Your task to perform on an android device: Go to CNN.com Image 0: 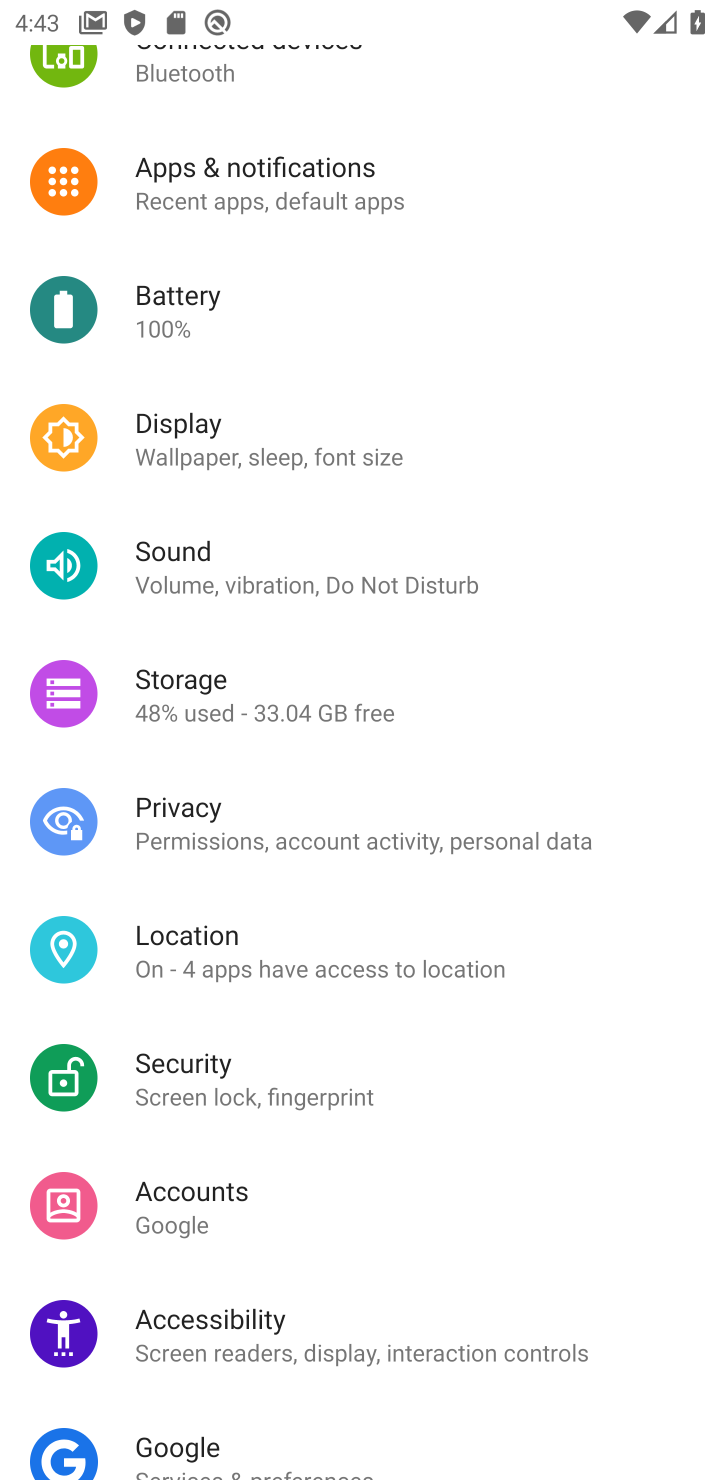
Step 0: press home button
Your task to perform on an android device: Go to CNN.com Image 1: 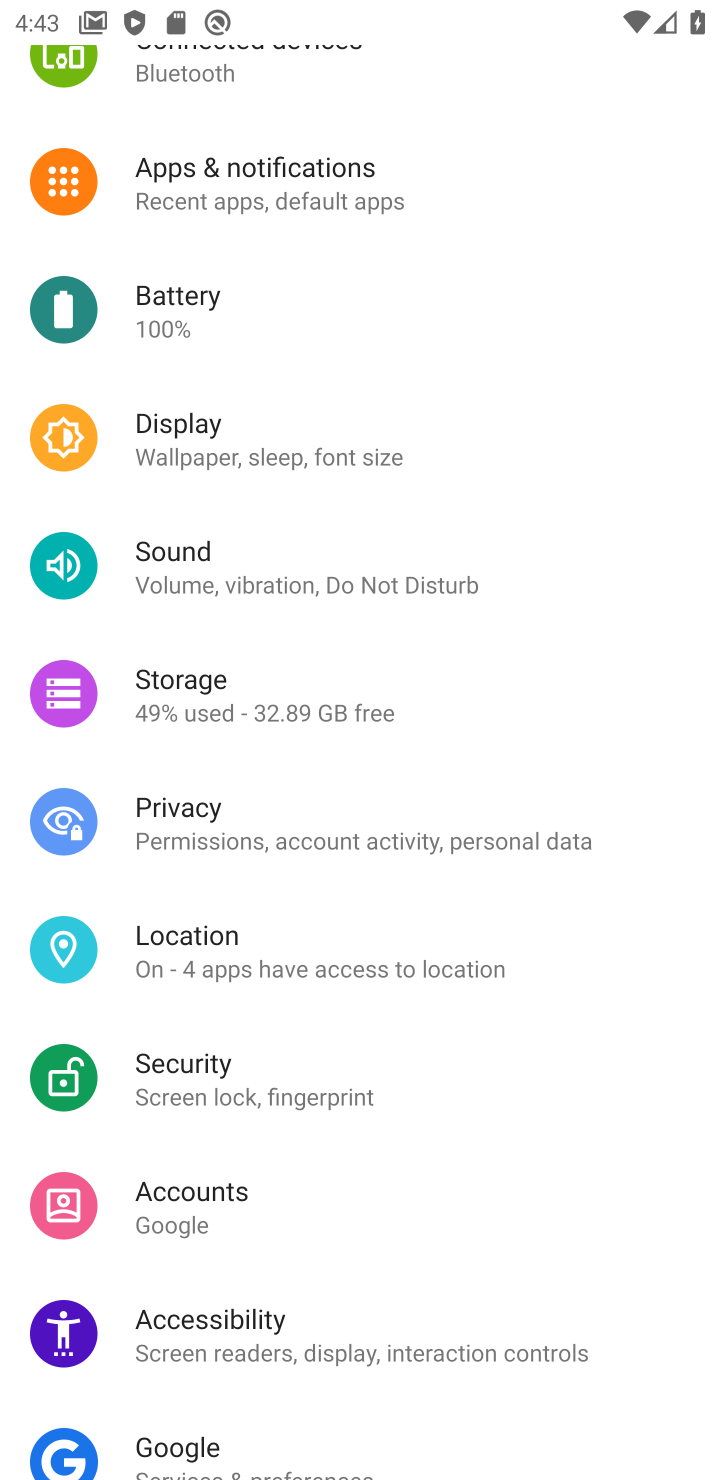
Step 1: press home button
Your task to perform on an android device: Go to CNN.com Image 2: 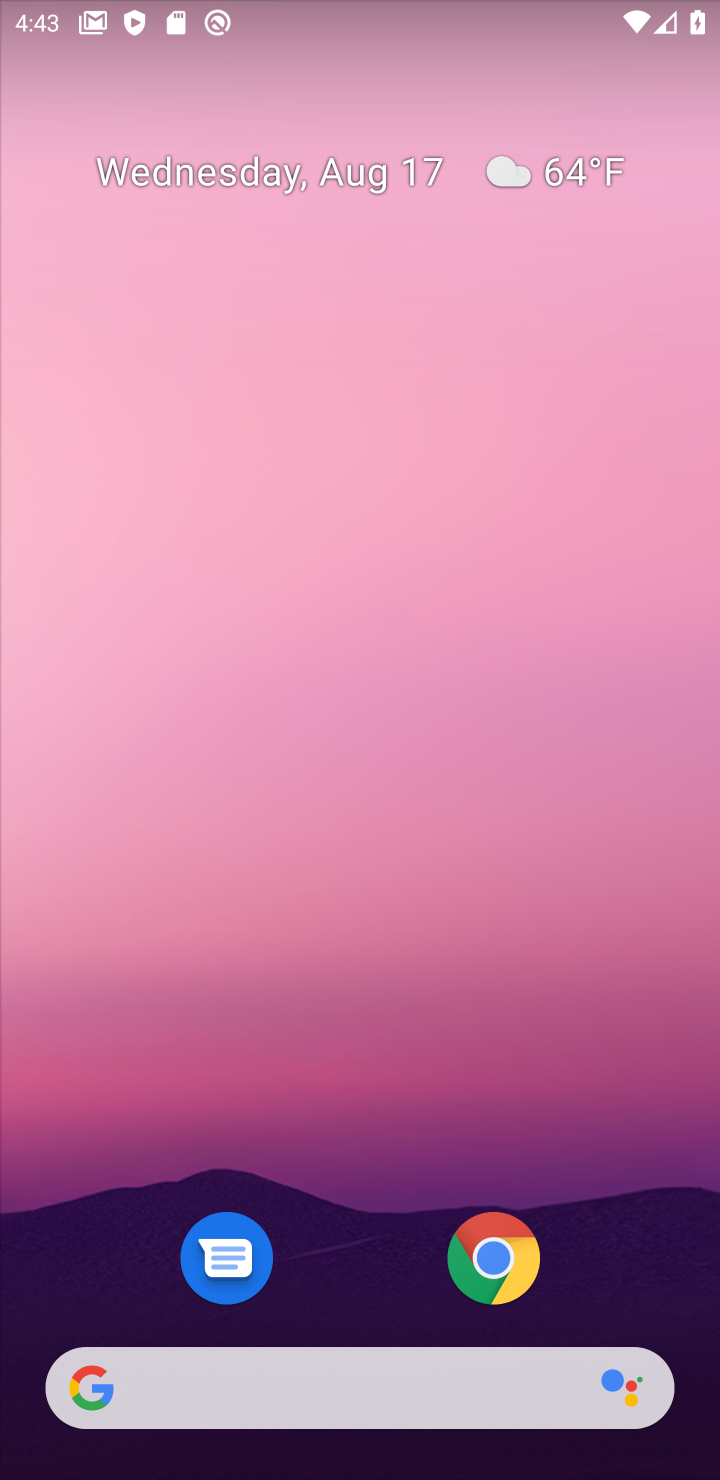
Step 2: drag from (335, 916) to (310, 159)
Your task to perform on an android device: Go to CNN.com Image 3: 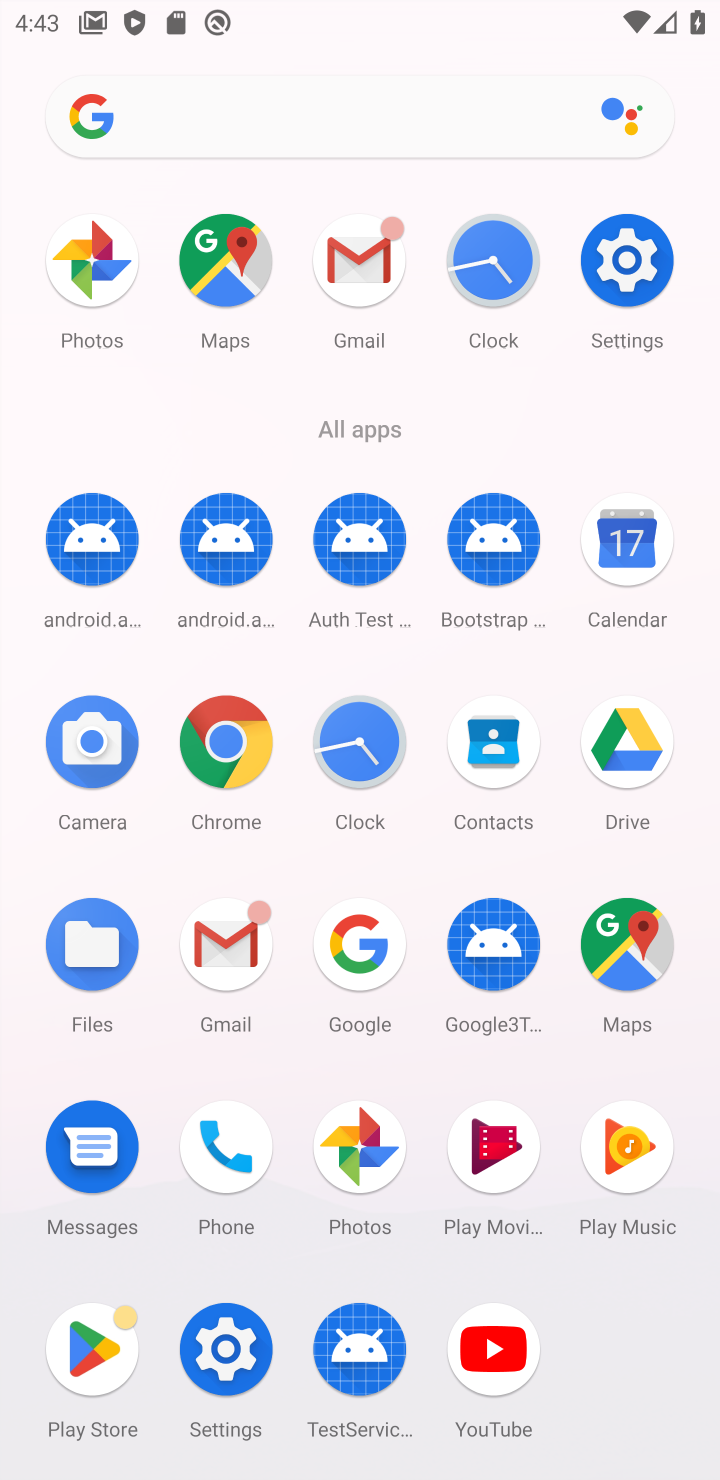
Step 3: click (217, 743)
Your task to perform on an android device: Go to CNN.com Image 4: 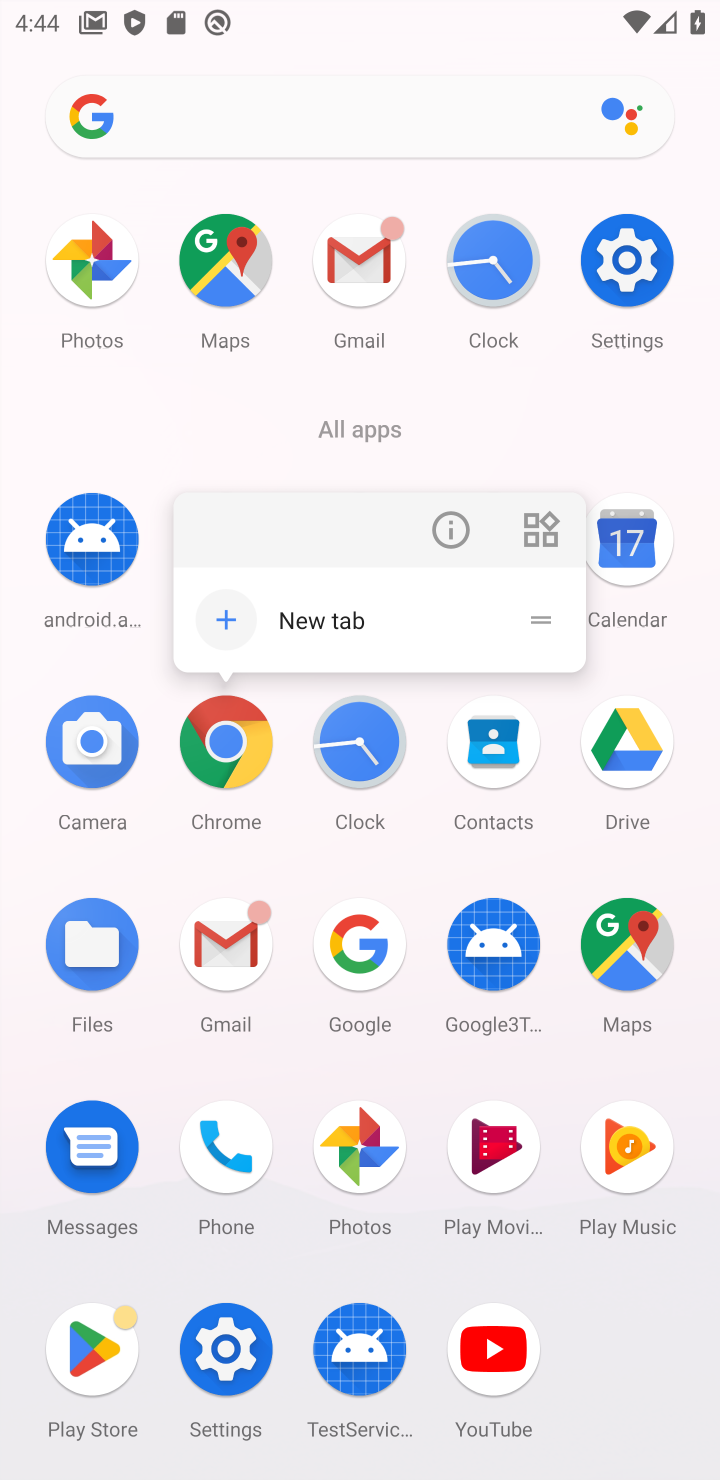
Step 4: click (236, 739)
Your task to perform on an android device: Go to CNN.com Image 5: 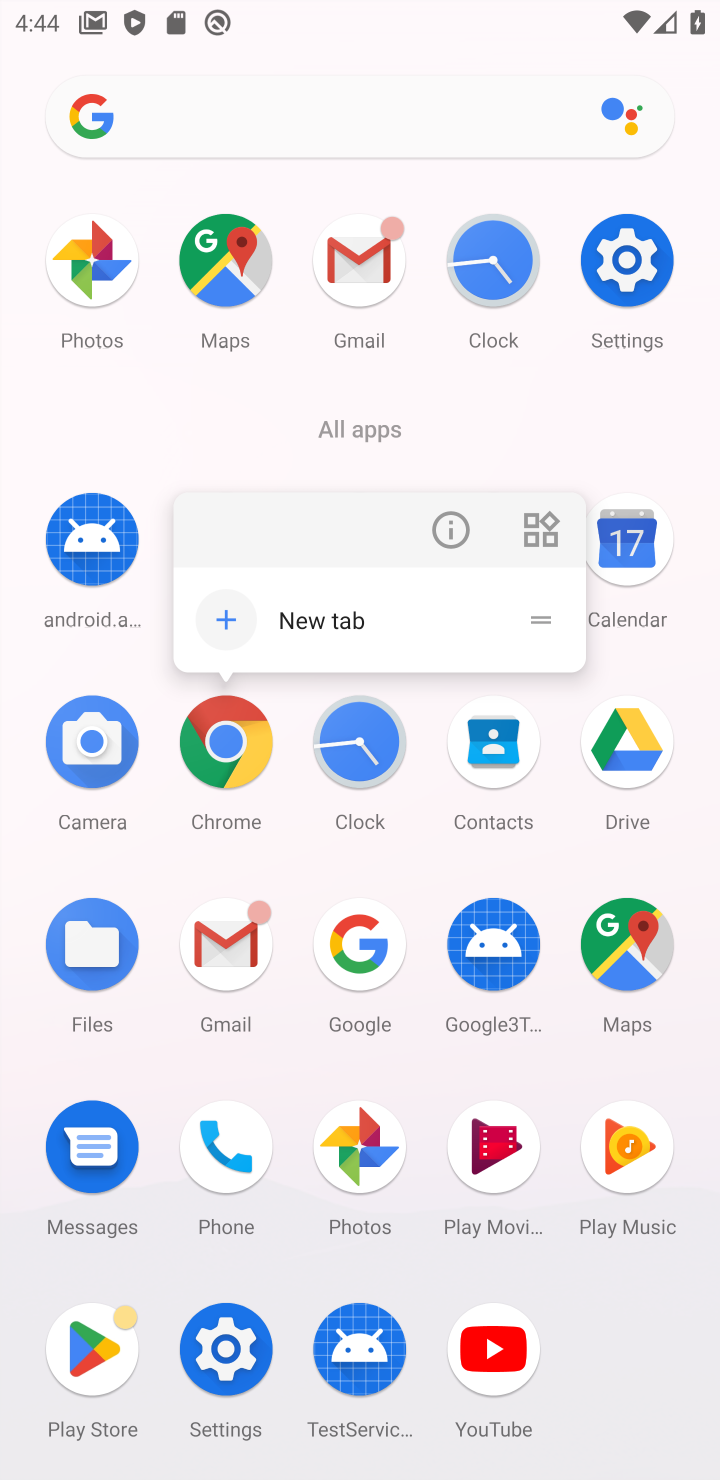
Step 5: click (242, 740)
Your task to perform on an android device: Go to CNN.com Image 6: 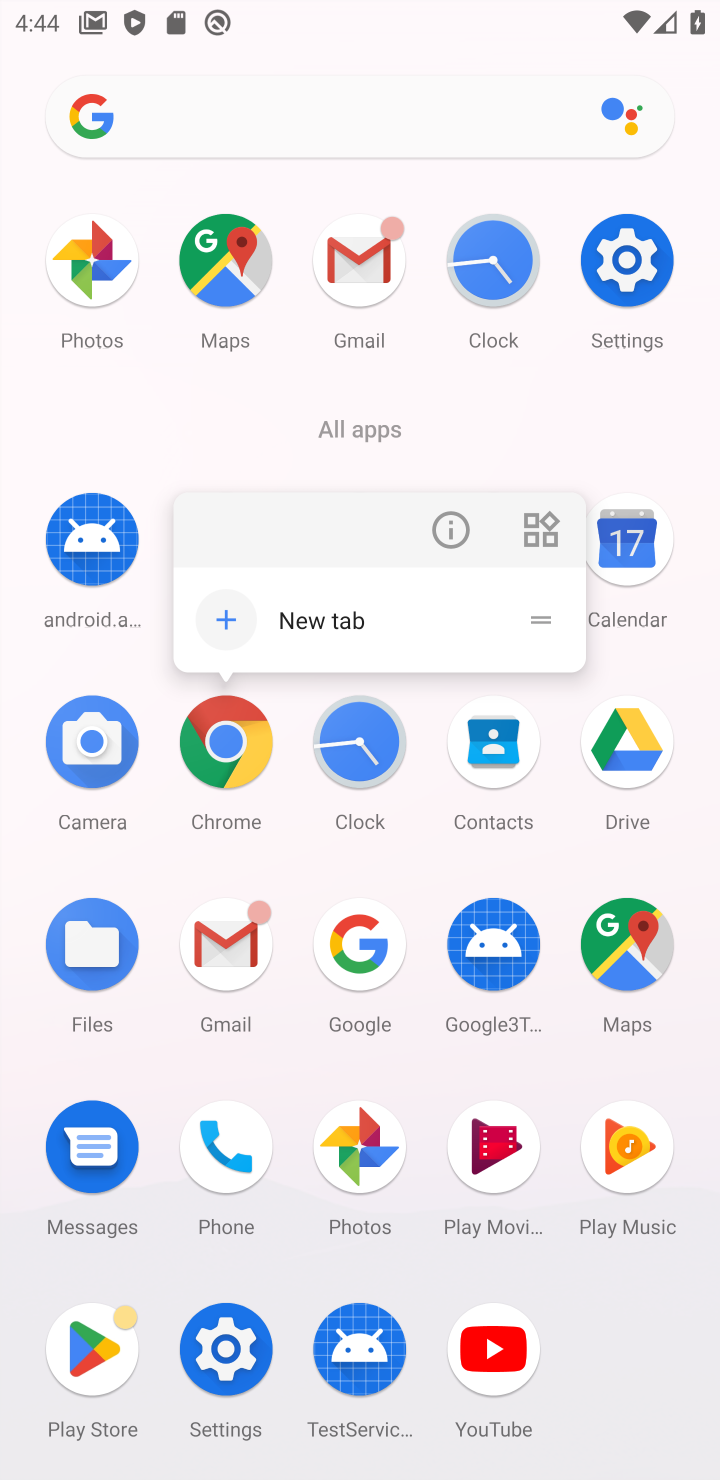
Step 6: click (242, 740)
Your task to perform on an android device: Go to CNN.com Image 7: 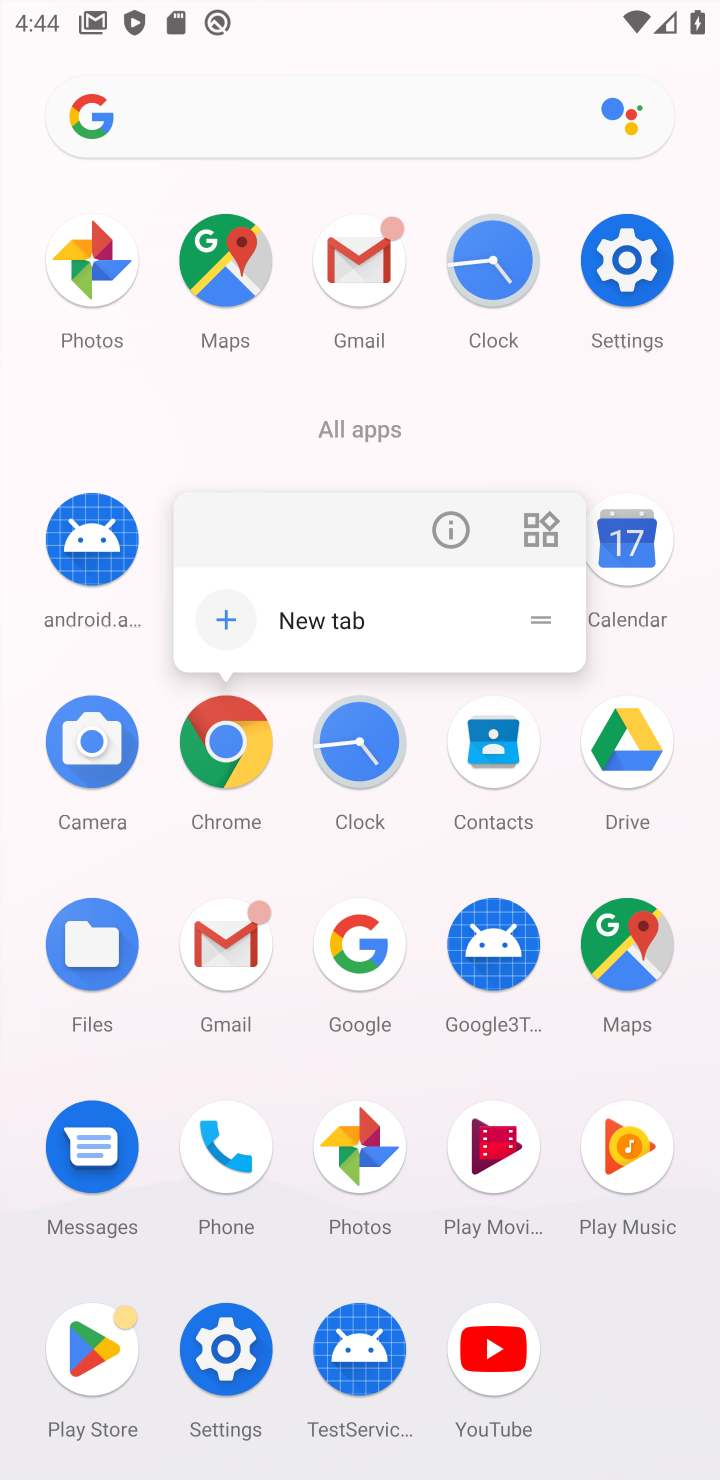
Step 7: click (234, 746)
Your task to perform on an android device: Go to CNN.com Image 8: 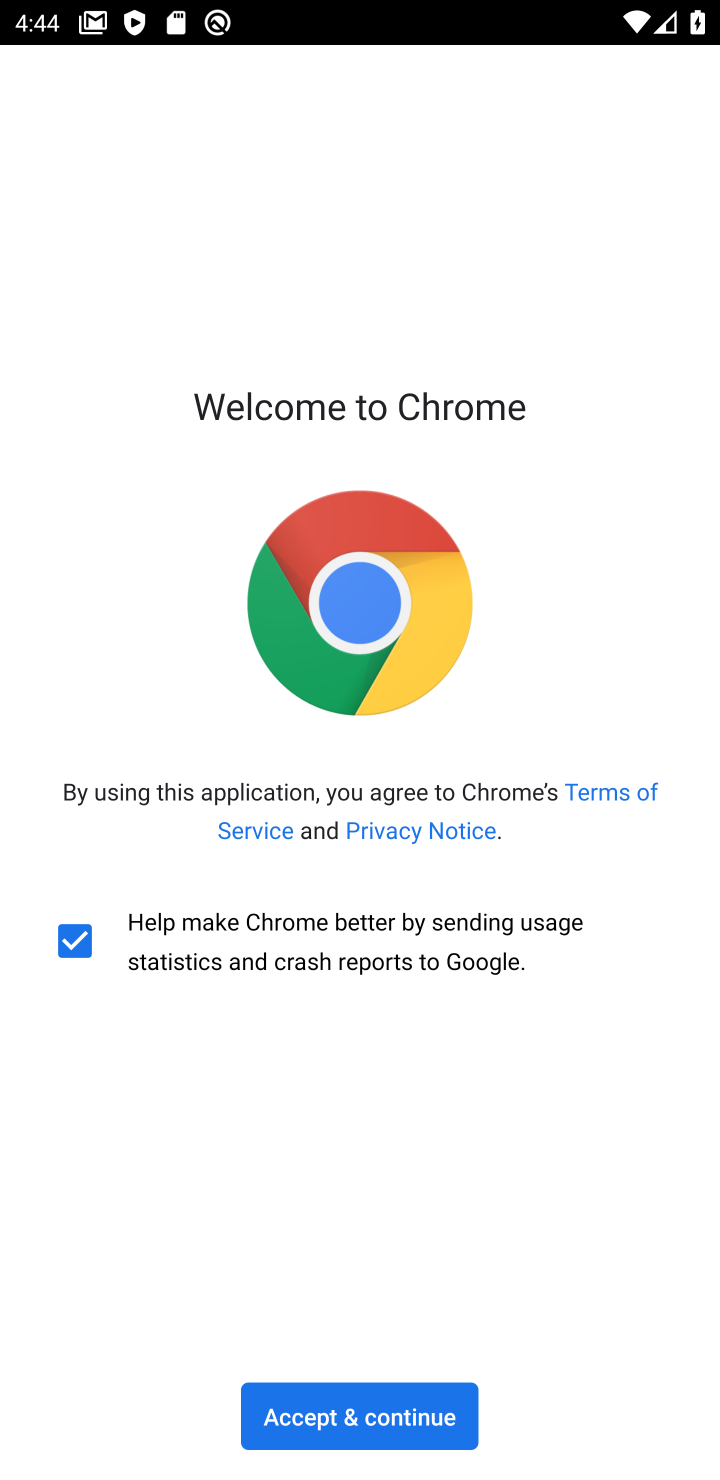
Step 8: click (289, 1428)
Your task to perform on an android device: Go to CNN.com Image 9: 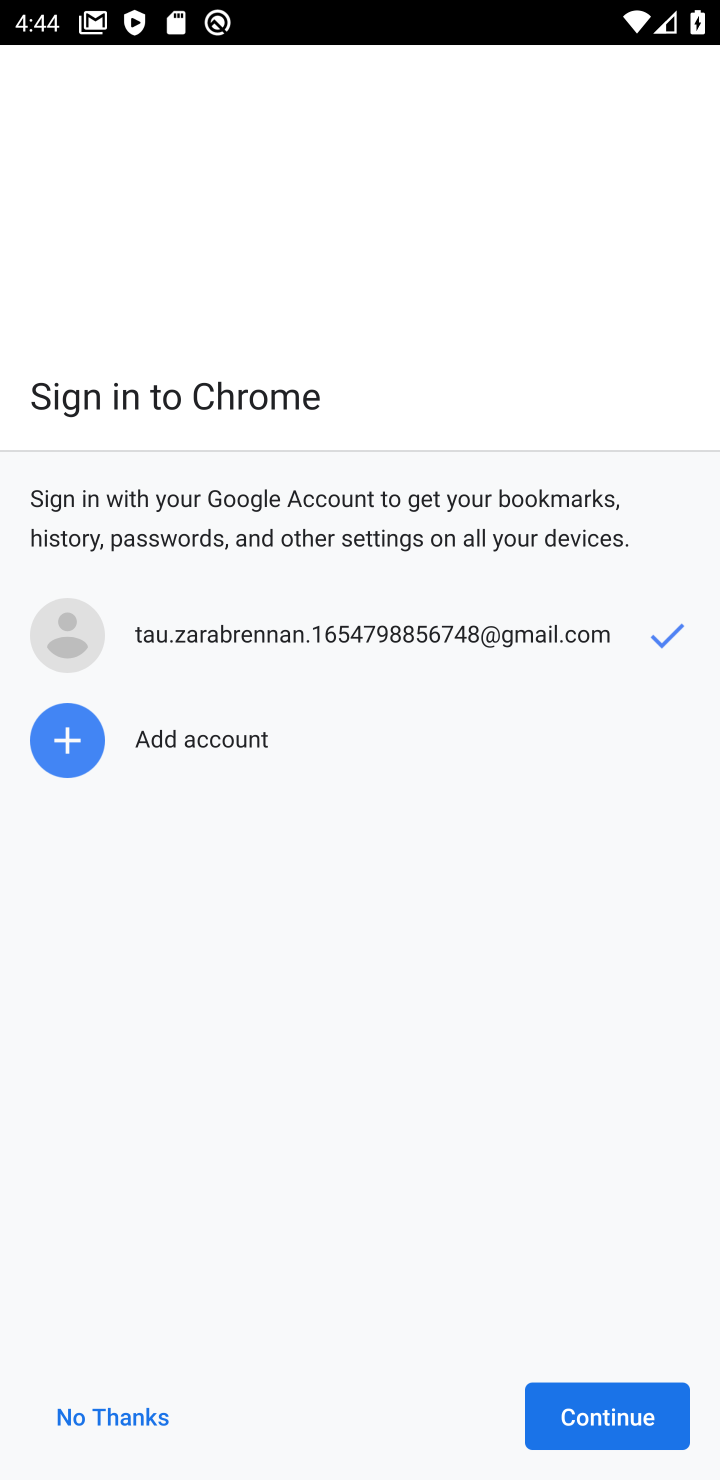
Step 9: click (649, 1407)
Your task to perform on an android device: Go to CNN.com Image 10: 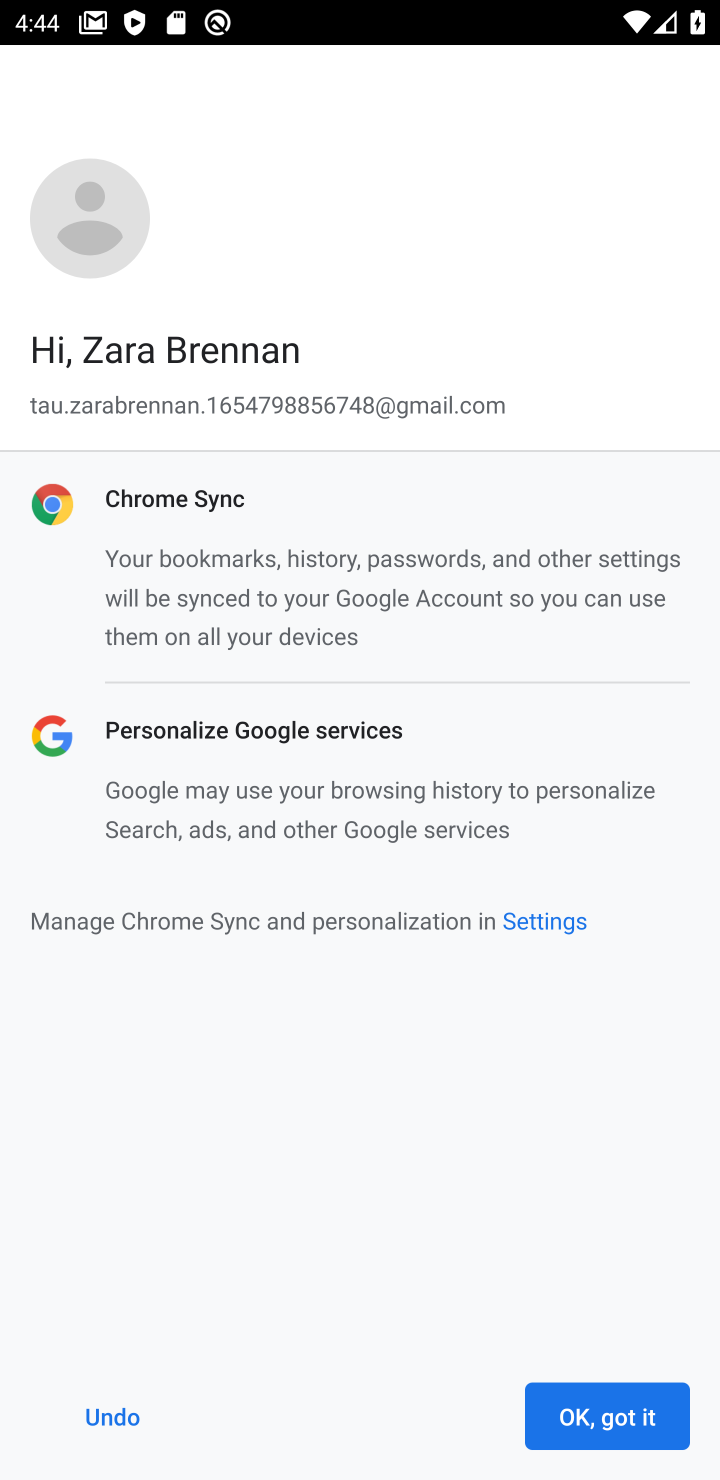
Step 10: click (637, 1422)
Your task to perform on an android device: Go to CNN.com Image 11: 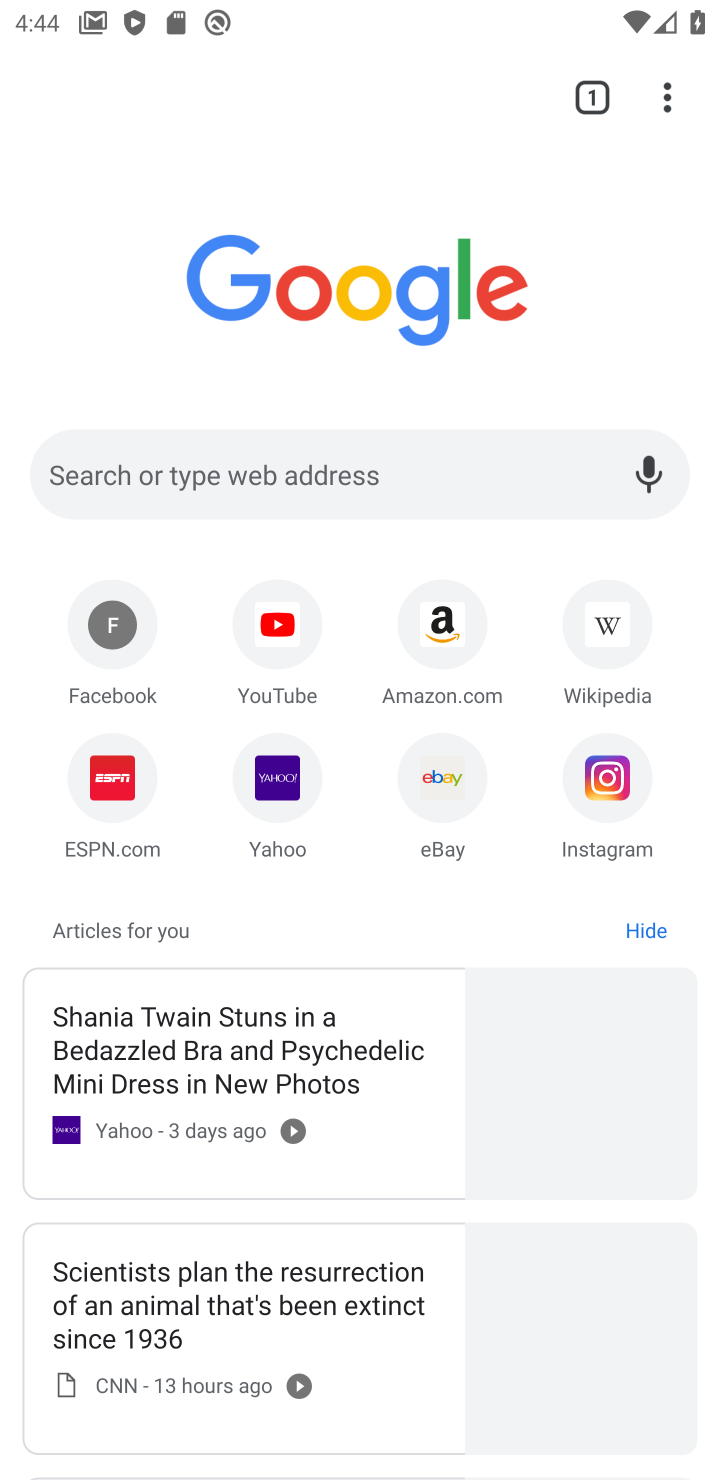
Step 11: click (334, 472)
Your task to perform on an android device: Go to CNN.com Image 12: 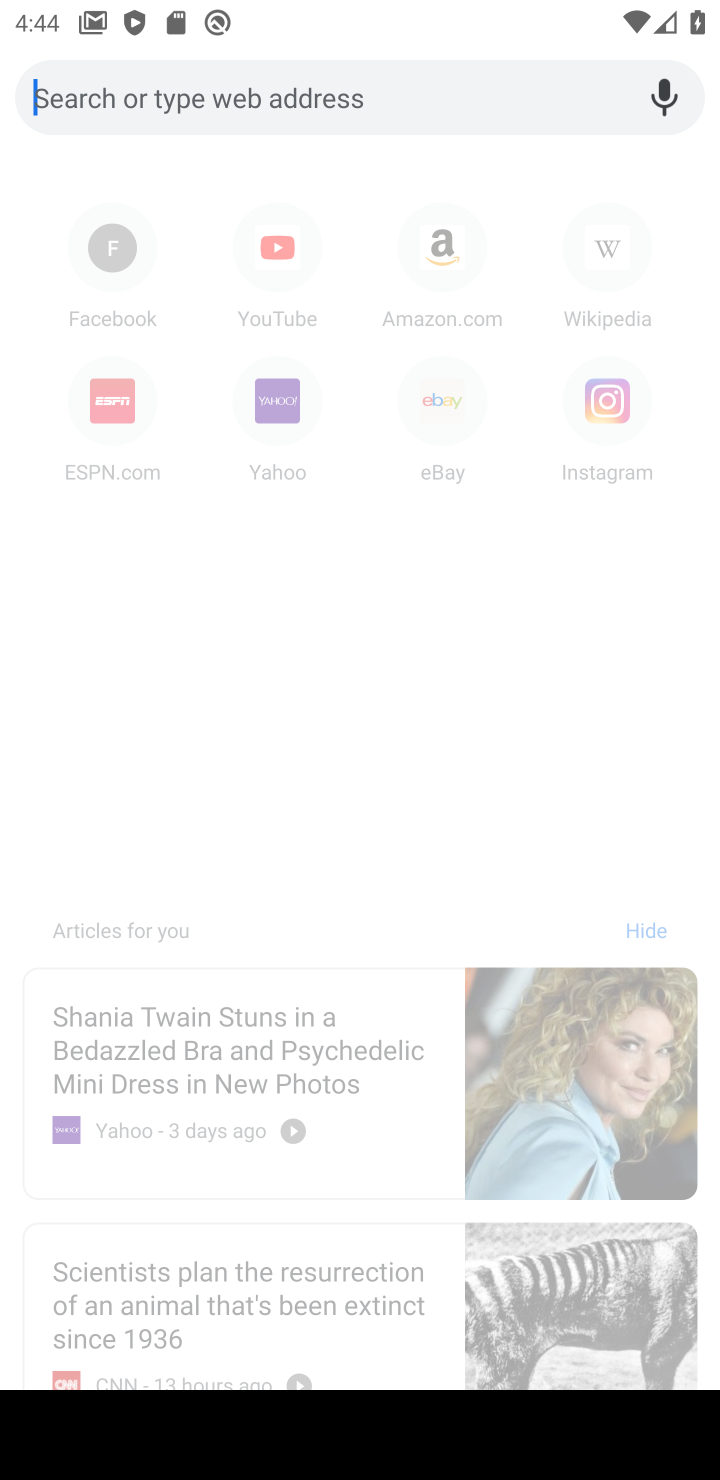
Step 12: type "cnn.com"
Your task to perform on an android device: Go to CNN.com Image 13: 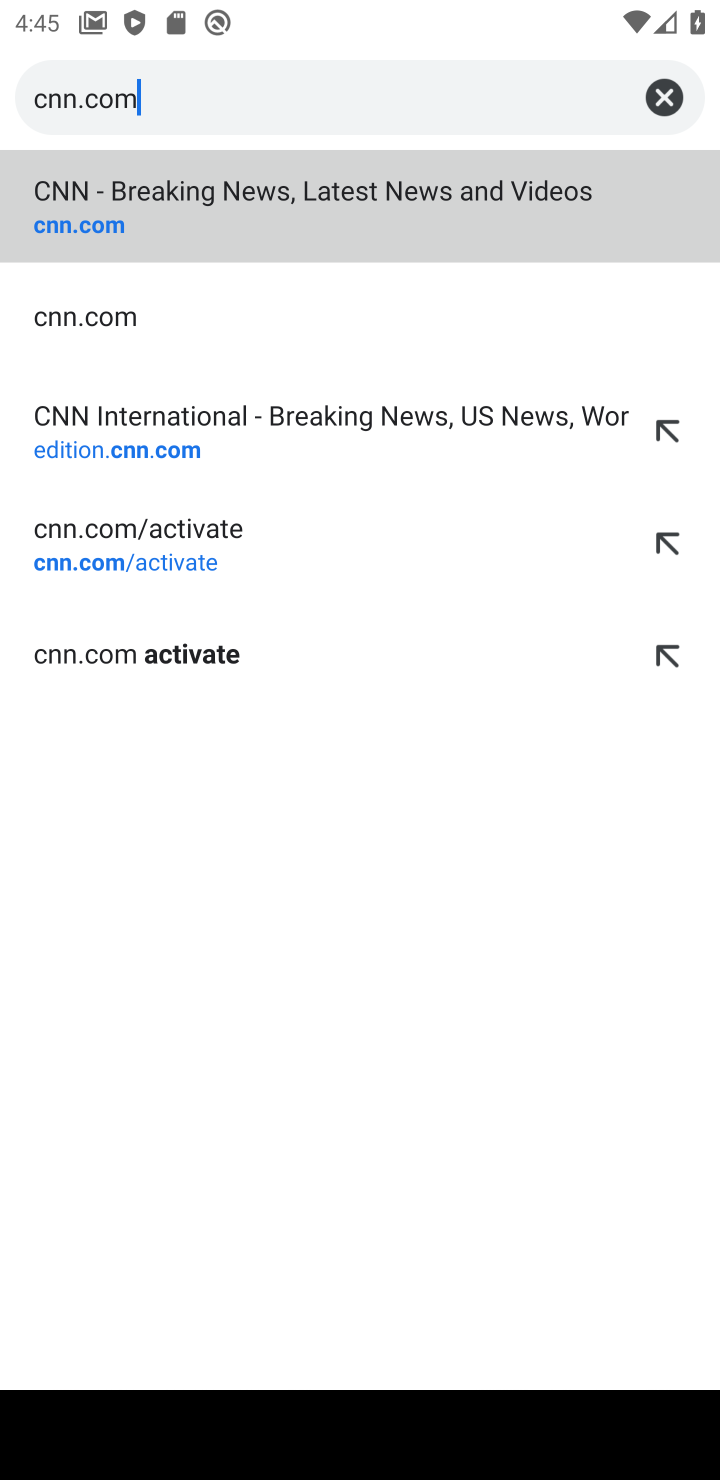
Step 13: click (103, 225)
Your task to perform on an android device: Go to CNN.com Image 14: 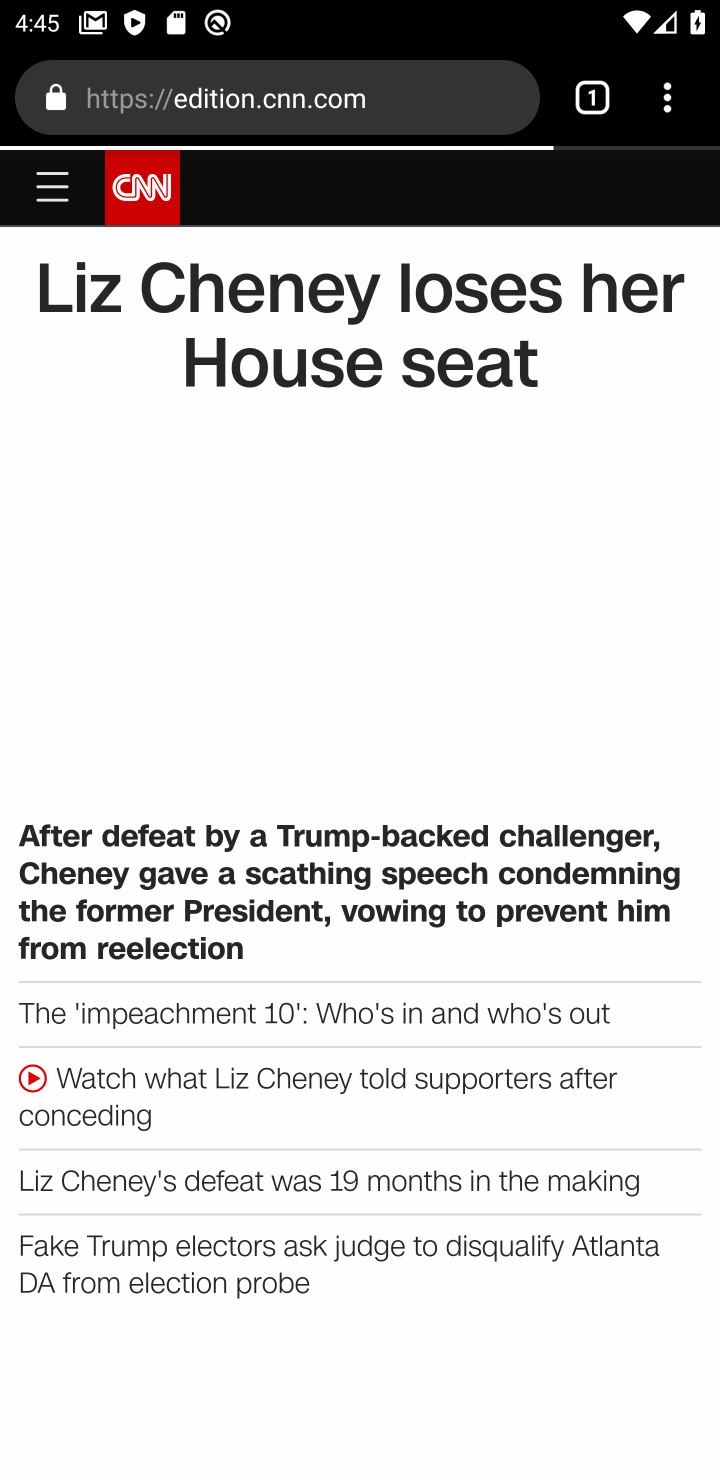
Step 14: task complete